Your task to perform on an android device: turn off notifications settings in the gmail app Image 0: 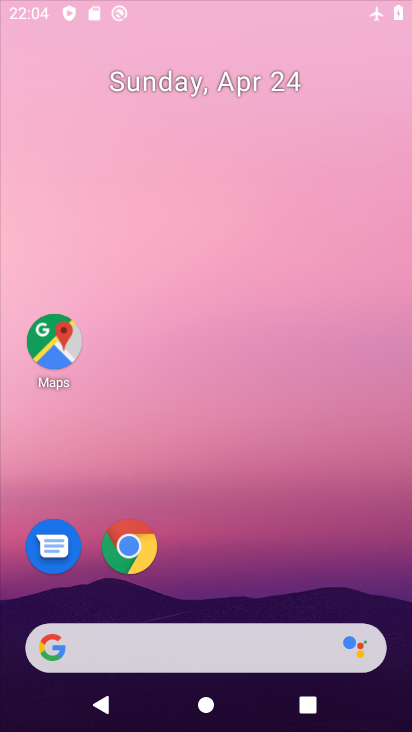
Step 0: drag from (269, 378) to (305, 204)
Your task to perform on an android device: turn off notifications settings in the gmail app Image 1: 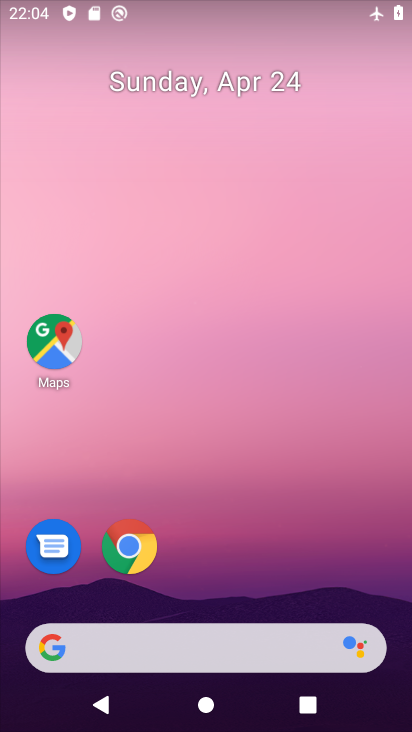
Step 1: drag from (300, 544) to (312, 140)
Your task to perform on an android device: turn off notifications settings in the gmail app Image 2: 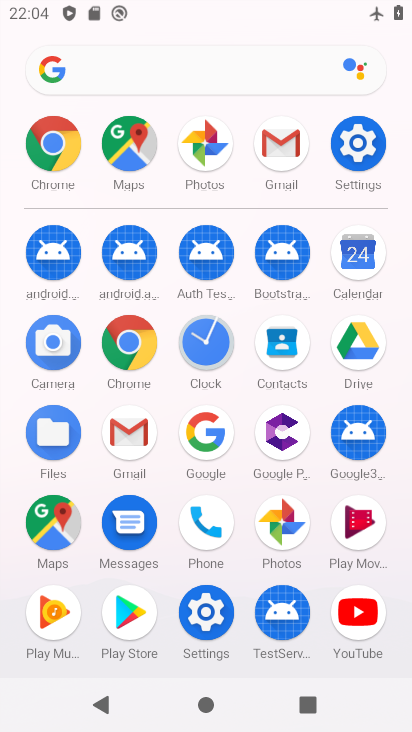
Step 2: click (120, 427)
Your task to perform on an android device: turn off notifications settings in the gmail app Image 3: 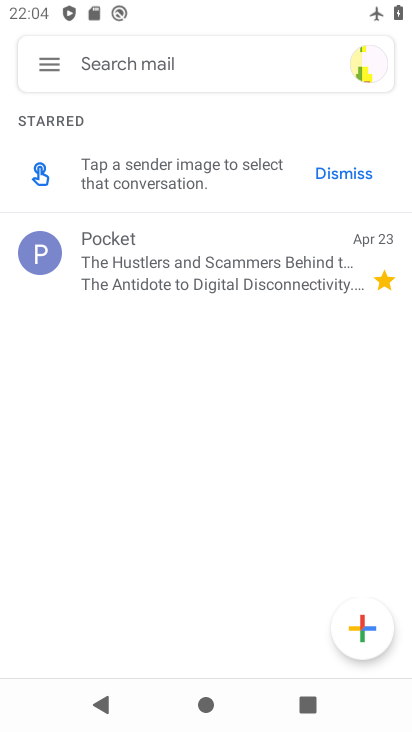
Step 3: click (50, 63)
Your task to perform on an android device: turn off notifications settings in the gmail app Image 4: 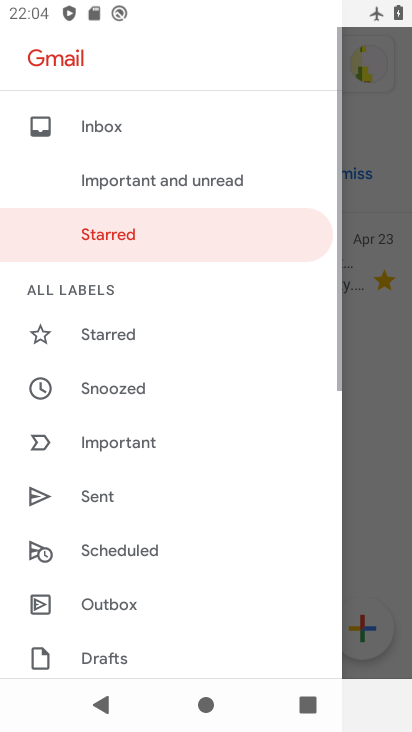
Step 4: drag from (145, 542) to (229, 65)
Your task to perform on an android device: turn off notifications settings in the gmail app Image 5: 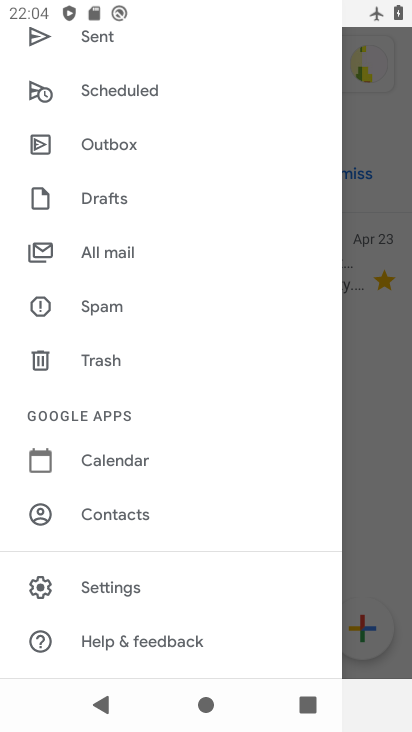
Step 5: click (105, 581)
Your task to perform on an android device: turn off notifications settings in the gmail app Image 6: 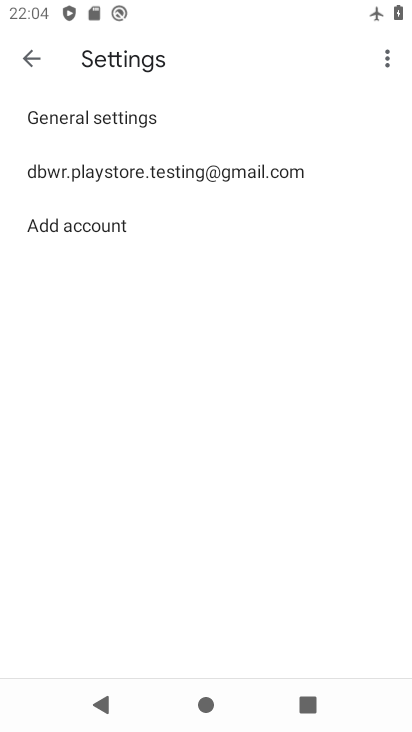
Step 6: click (109, 170)
Your task to perform on an android device: turn off notifications settings in the gmail app Image 7: 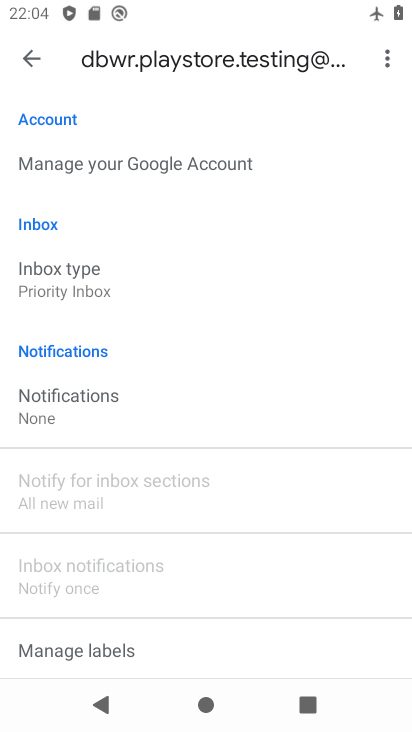
Step 7: drag from (153, 643) to (186, 503)
Your task to perform on an android device: turn off notifications settings in the gmail app Image 8: 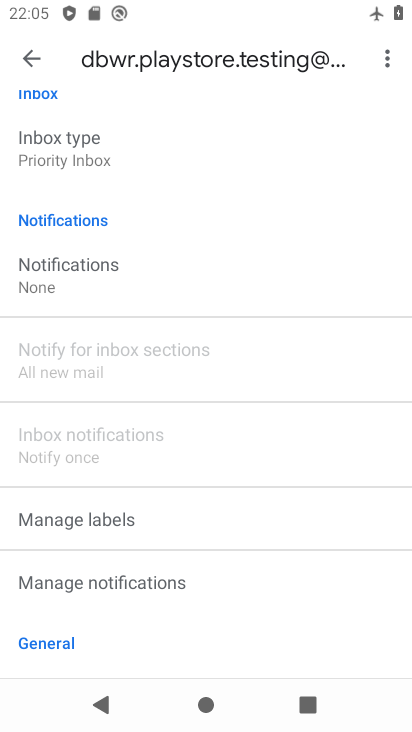
Step 8: click (122, 285)
Your task to perform on an android device: turn off notifications settings in the gmail app Image 9: 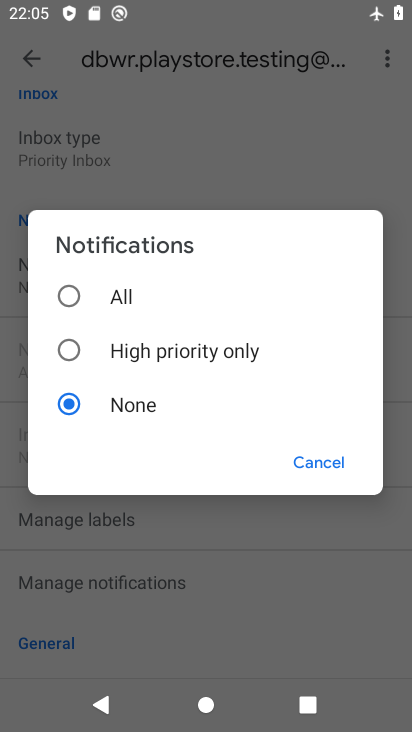
Step 9: task complete